Your task to perform on an android device: turn vacation reply on in the gmail app Image 0: 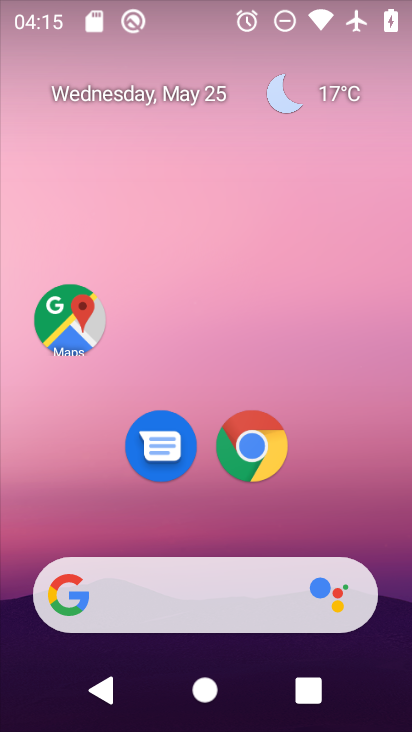
Step 0: drag from (218, 601) to (225, 102)
Your task to perform on an android device: turn vacation reply on in the gmail app Image 1: 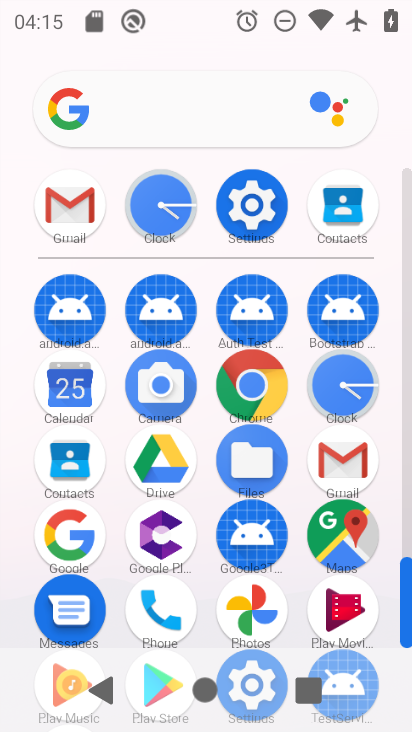
Step 1: click (331, 459)
Your task to perform on an android device: turn vacation reply on in the gmail app Image 2: 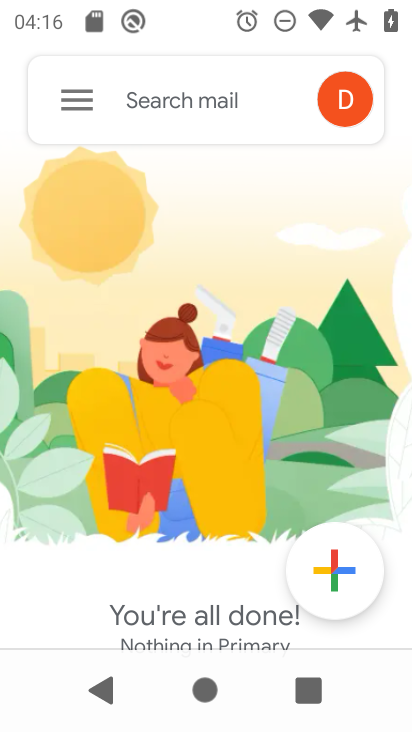
Step 2: click (77, 91)
Your task to perform on an android device: turn vacation reply on in the gmail app Image 3: 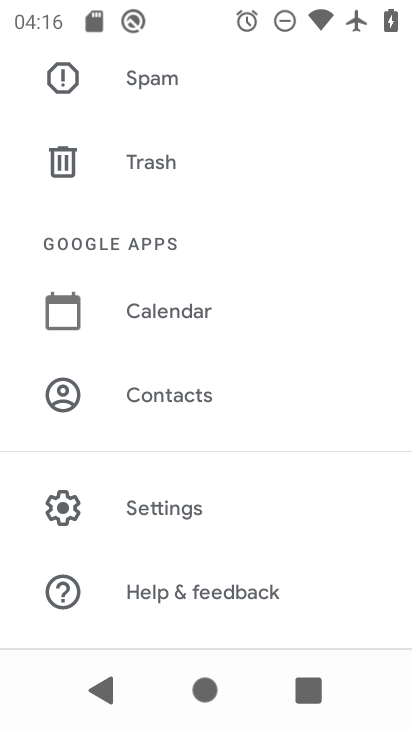
Step 3: click (159, 512)
Your task to perform on an android device: turn vacation reply on in the gmail app Image 4: 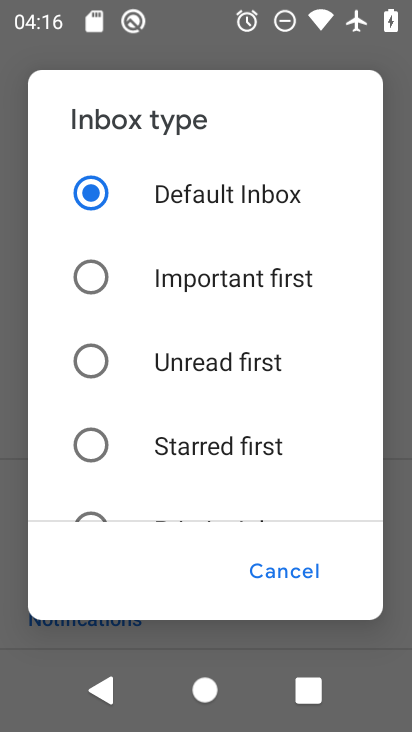
Step 4: click (305, 582)
Your task to perform on an android device: turn vacation reply on in the gmail app Image 5: 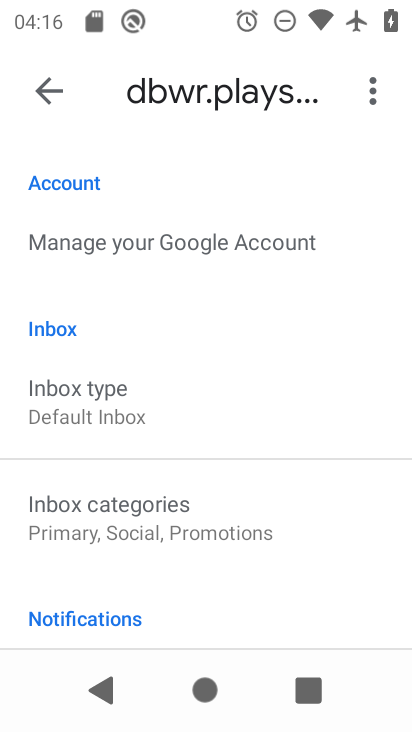
Step 5: click (270, 564)
Your task to perform on an android device: turn vacation reply on in the gmail app Image 6: 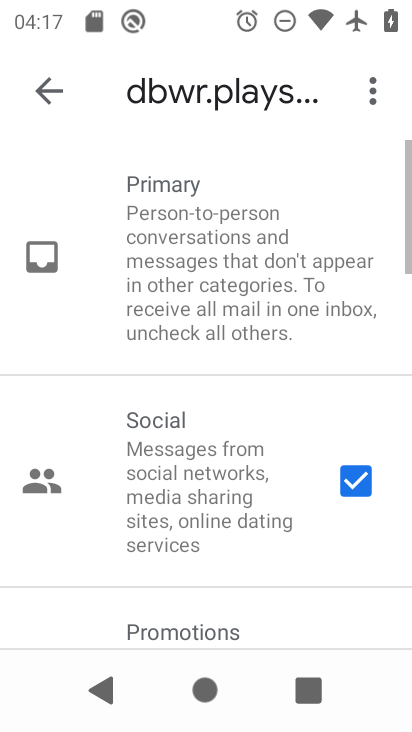
Step 6: drag from (256, 569) to (241, 114)
Your task to perform on an android device: turn vacation reply on in the gmail app Image 7: 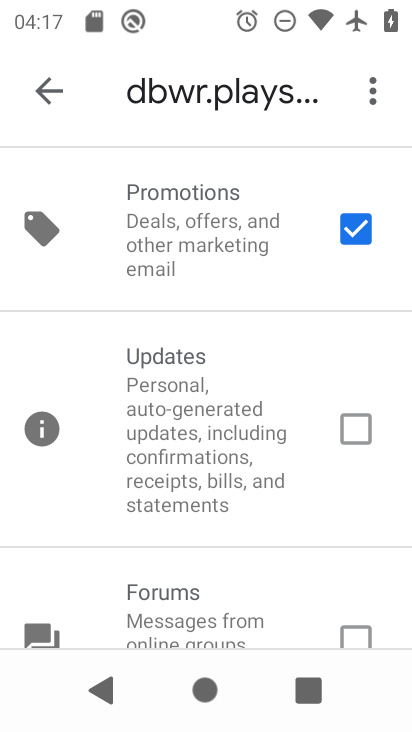
Step 7: click (56, 102)
Your task to perform on an android device: turn vacation reply on in the gmail app Image 8: 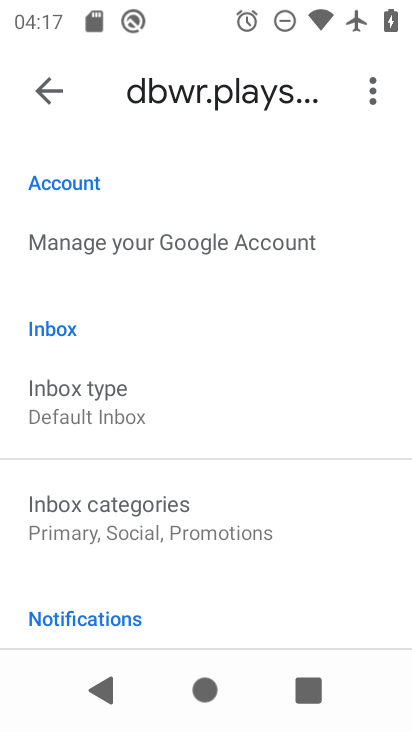
Step 8: drag from (225, 560) to (227, 161)
Your task to perform on an android device: turn vacation reply on in the gmail app Image 9: 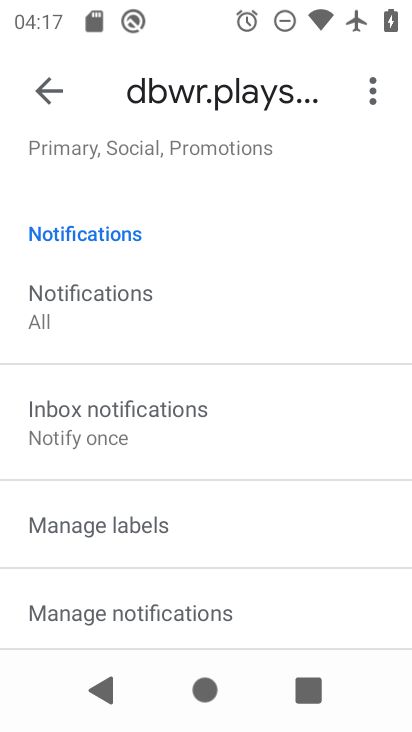
Step 9: drag from (278, 571) to (194, 53)
Your task to perform on an android device: turn vacation reply on in the gmail app Image 10: 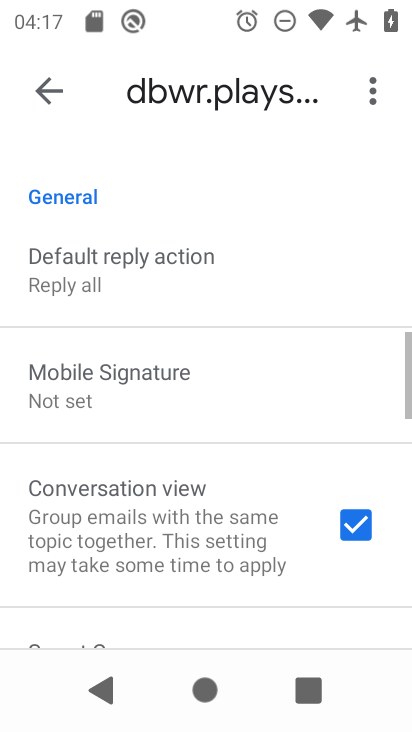
Step 10: drag from (262, 518) to (181, 13)
Your task to perform on an android device: turn vacation reply on in the gmail app Image 11: 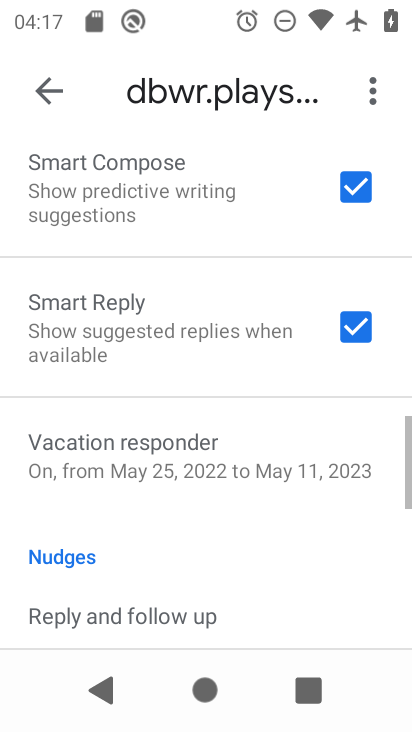
Step 11: click (267, 481)
Your task to perform on an android device: turn vacation reply on in the gmail app Image 12: 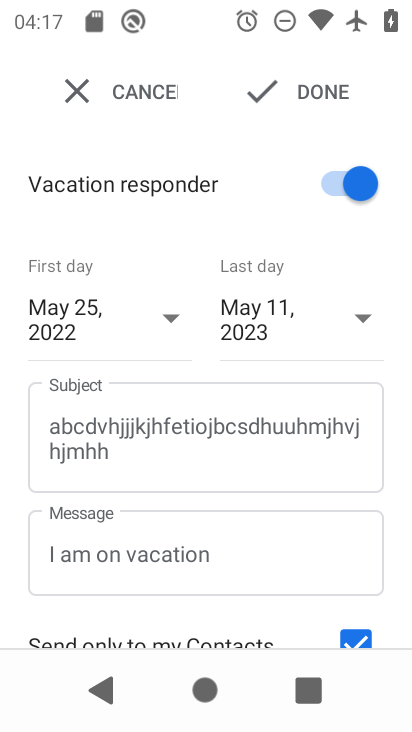
Step 12: click (286, 85)
Your task to perform on an android device: turn vacation reply on in the gmail app Image 13: 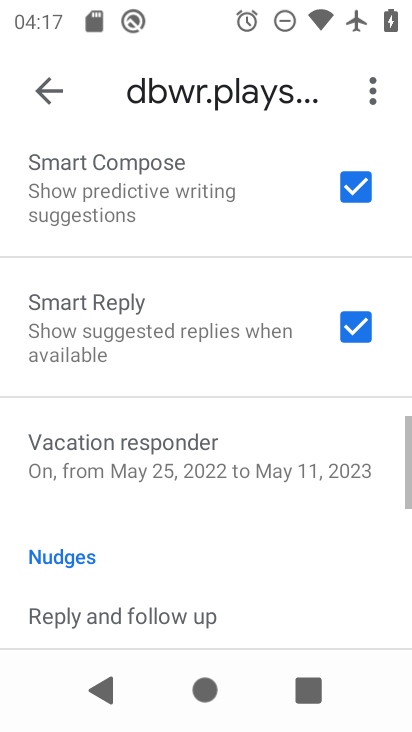
Step 13: task complete